Your task to perform on an android device: Open sound settings Image 0: 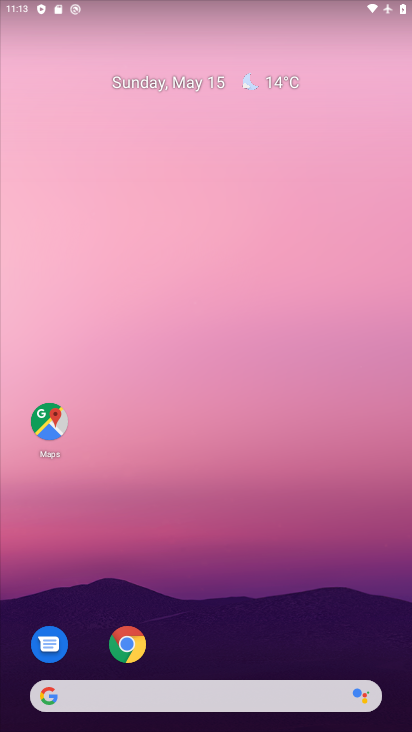
Step 0: drag from (244, 549) to (100, 111)
Your task to perform on an android device: Open sound settings Image 1: 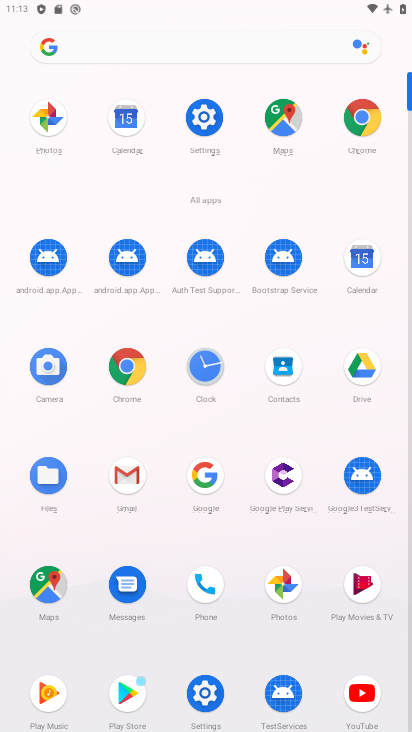
Step 1: click (214, 701)
Your task to perform on an android device: Open sound settings Image 2: 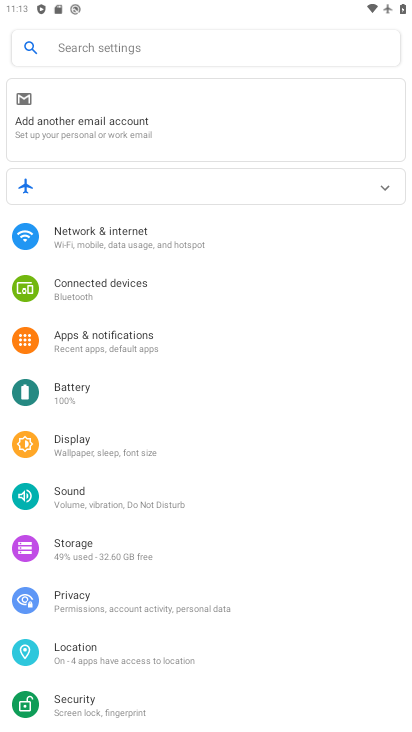
Step 2: click (62, 498)
Your task to perform on an android device: Open sound settings Image 3: 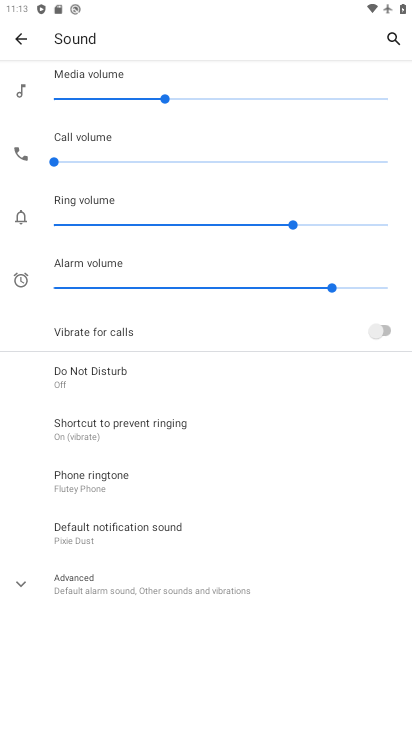
Step 3: click (78, 588)
Your task to perform on an android device: Open sound settings Image 4: 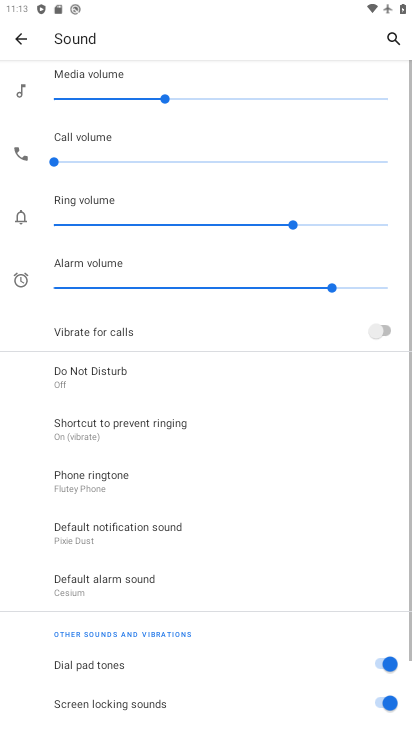
Step 4: task complete